Your task to perform on an android device: turn on bluetooth scan Image 0: 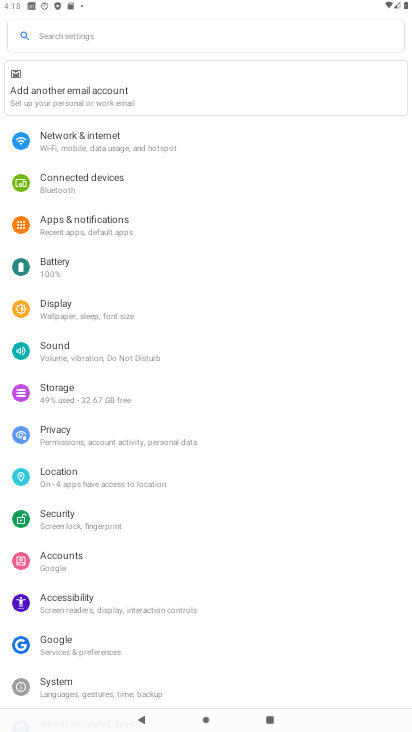
Step 0: click (164, 484)
Your task to perform on an android device: turn on bluetooth scan Image 1: 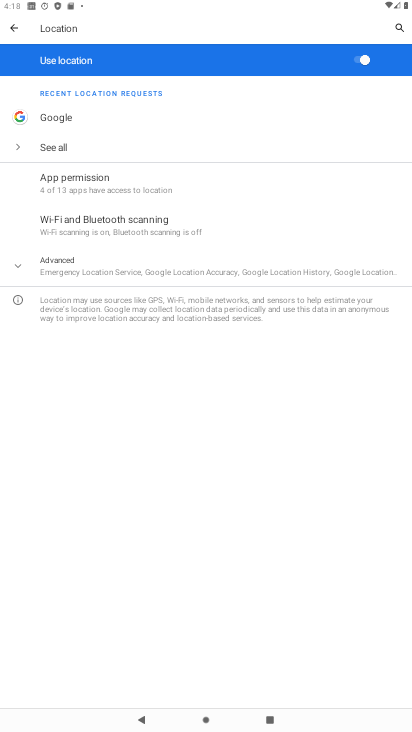
Step 1: click (292, 223)
Your task to perform on an android device: turn on bluetooth scan Image 2: 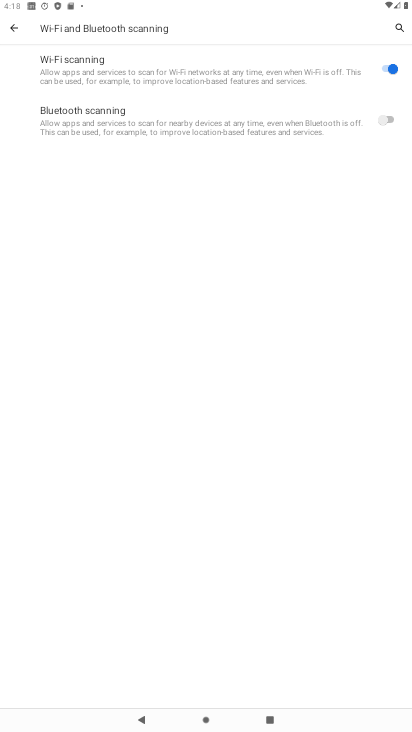
Step 2: click (394, 109)
Your task to perform on an android device: turn on bluetooth scan Image 3: 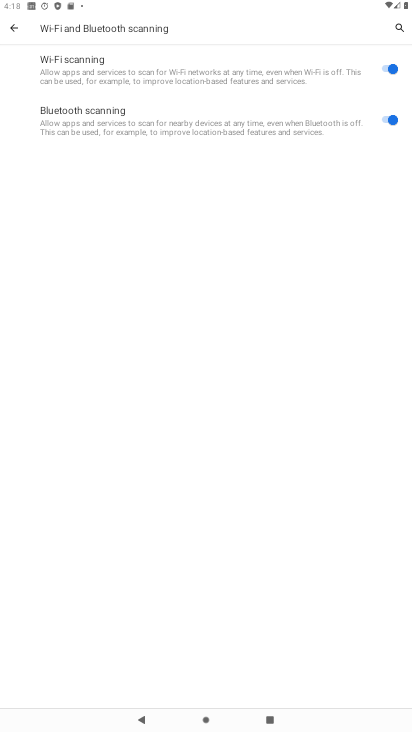
Step 3: task complete